Your task to perform on an android device: What's the weather? Image 0: 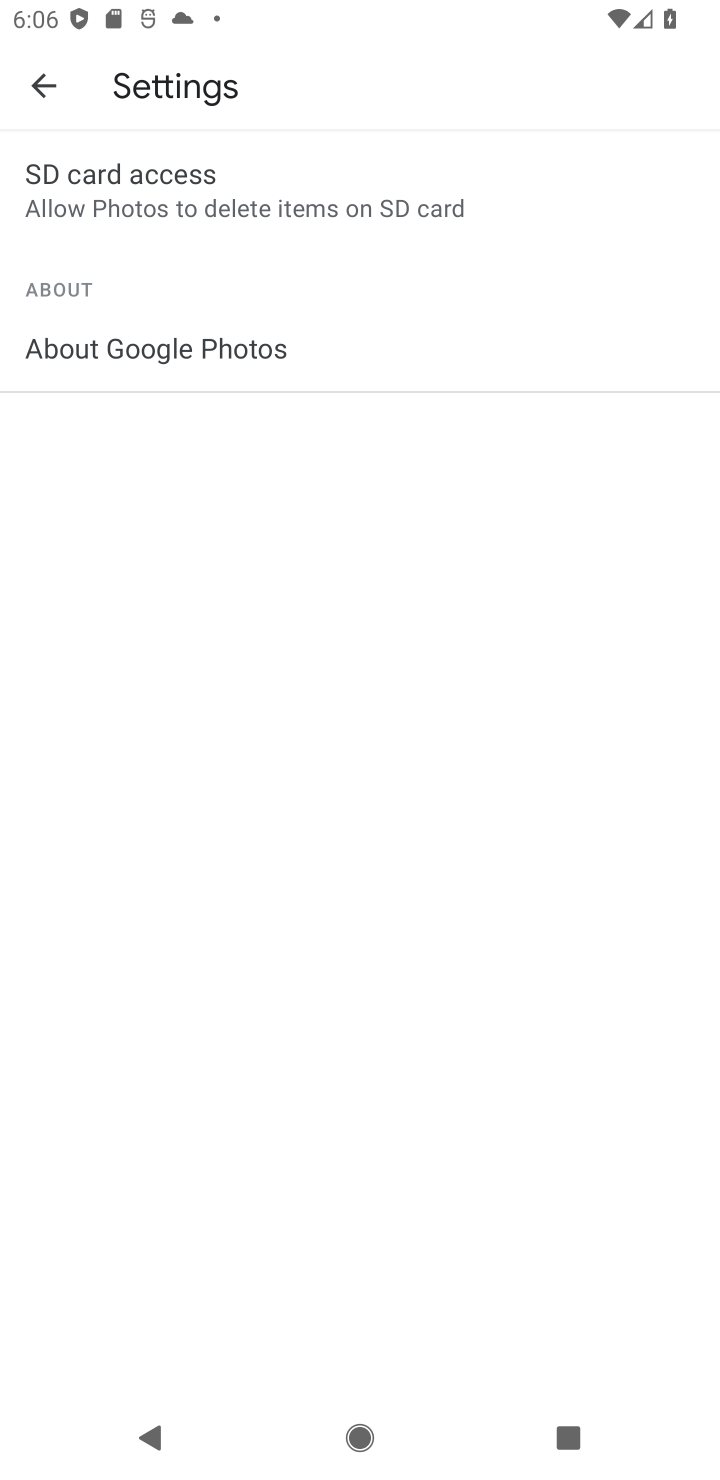
Step 0: press home button
Your task to perform on an android device: What's the weather? Image 1: 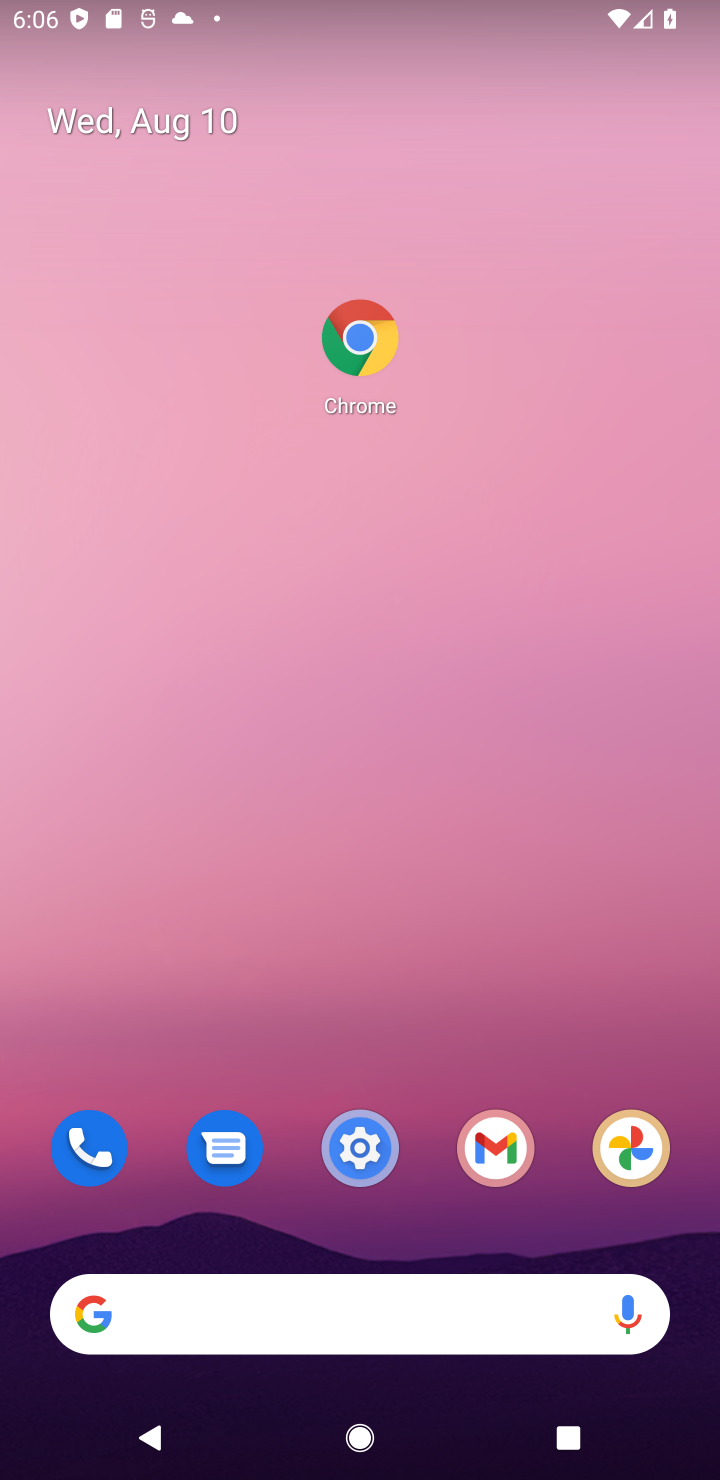
Step 1: click (370, 1302)
Your task to perform on an android device: What's the weather? Image 2: 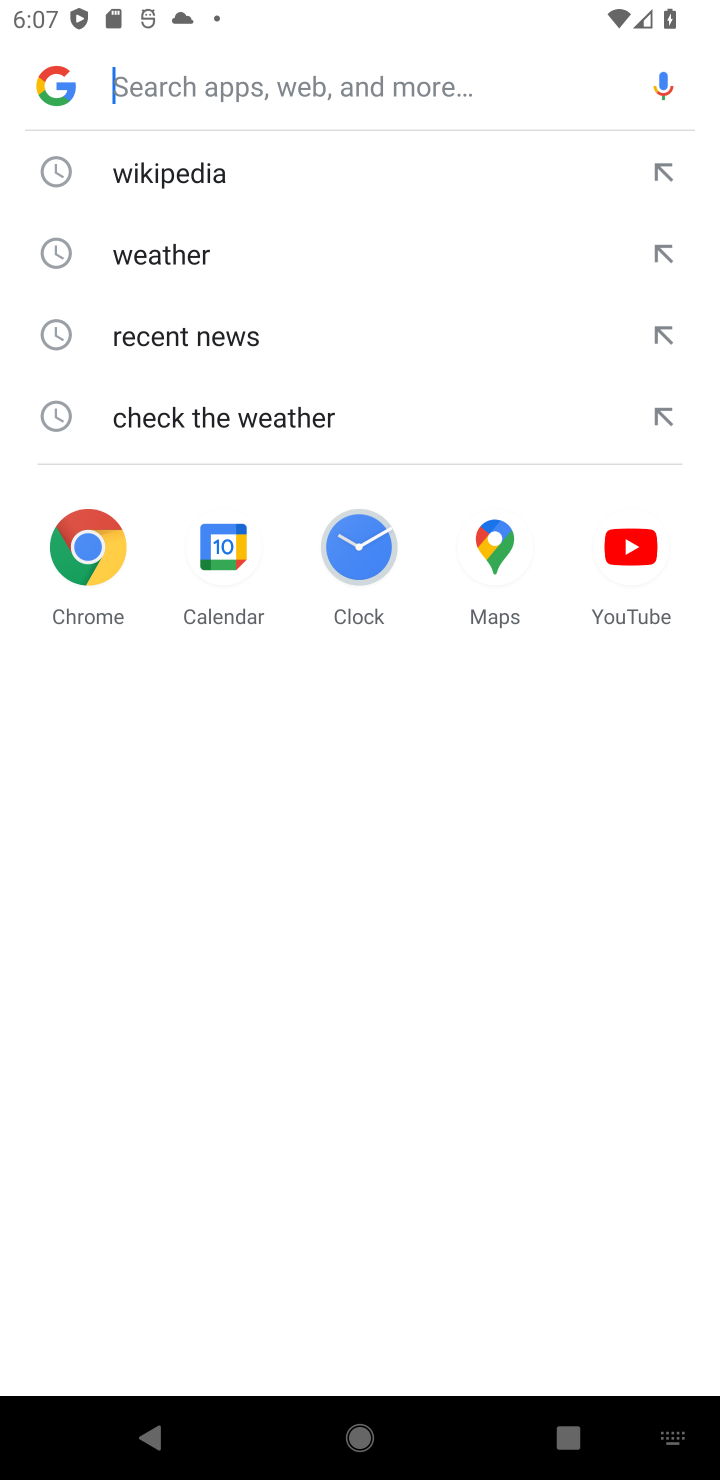
Step 2: click (134, 276)
Your task to perform on an android device: What's the weather? Image 3: 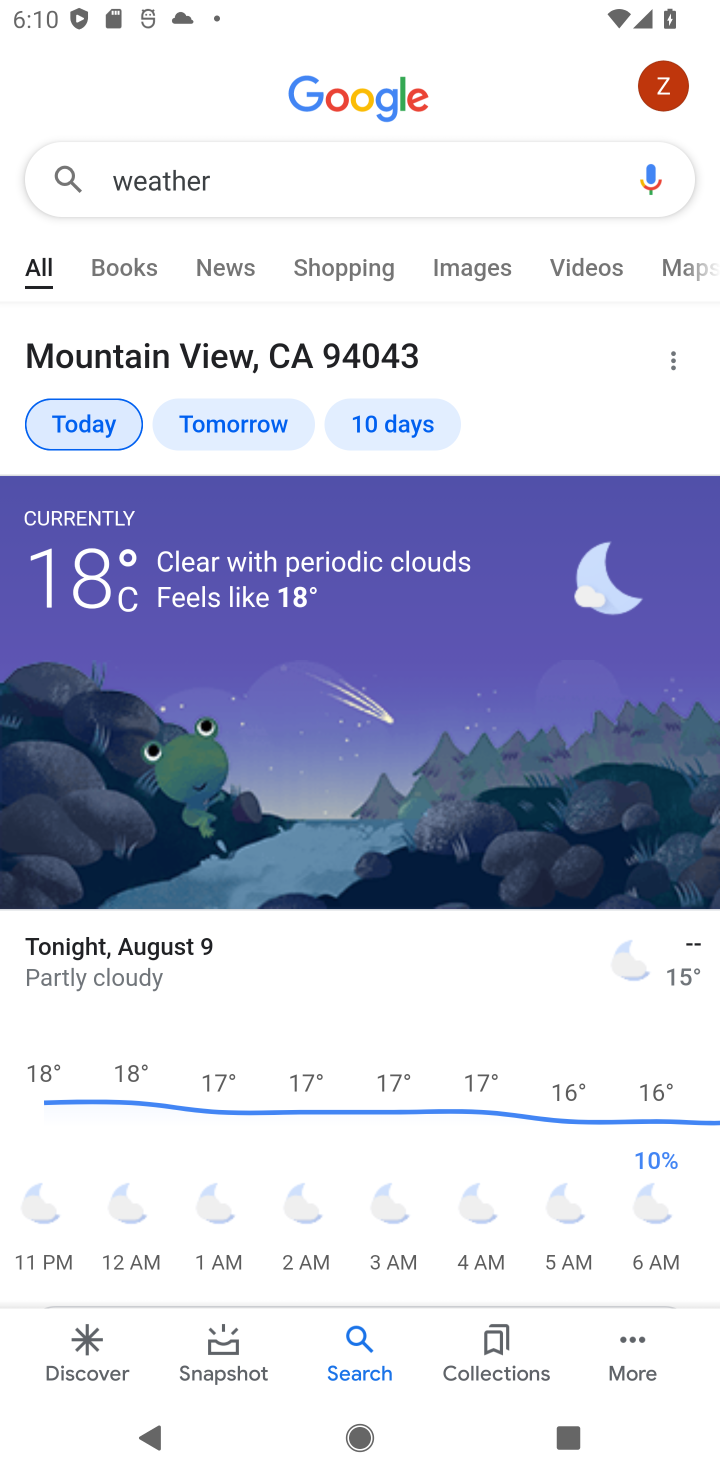
Step 3: task complete